Your task to perform on an android device: toggle javascript in the chrome app Image 0: 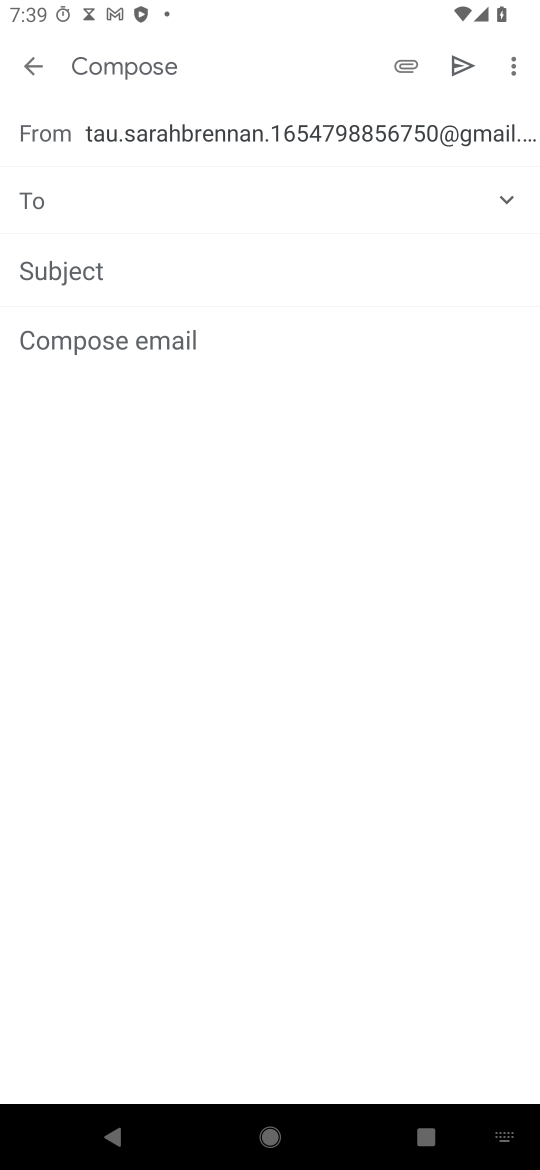
Step 0: press home button
Your task to perform on an android device: toggle javascript in the chrome app Image 1: 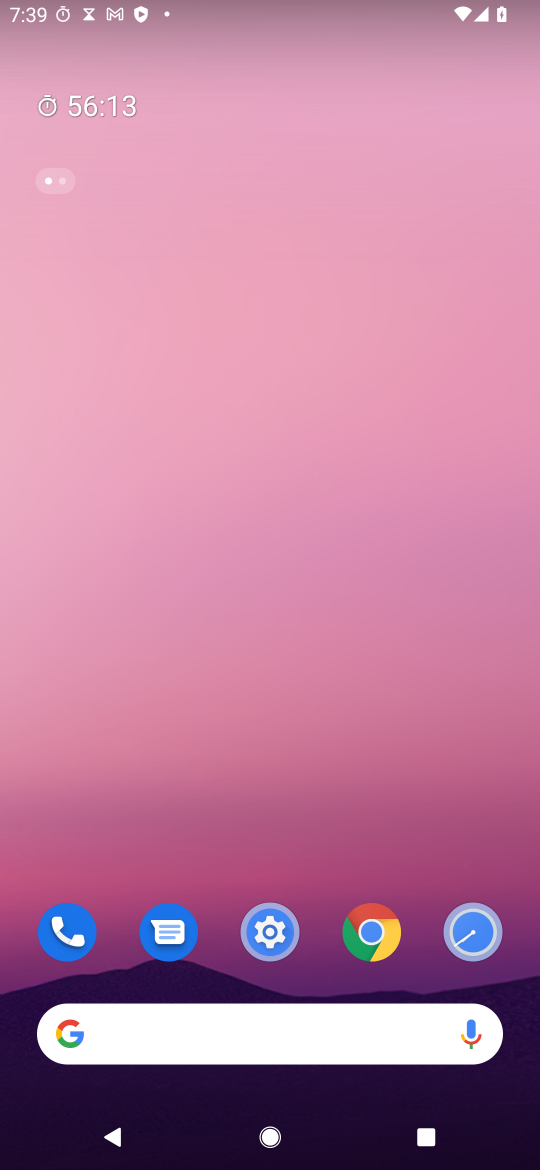
Step 1: drag from (385, 918) to (361, 158)
Your task to perform on an android device: toggle javascript in the chrome app Image 2: 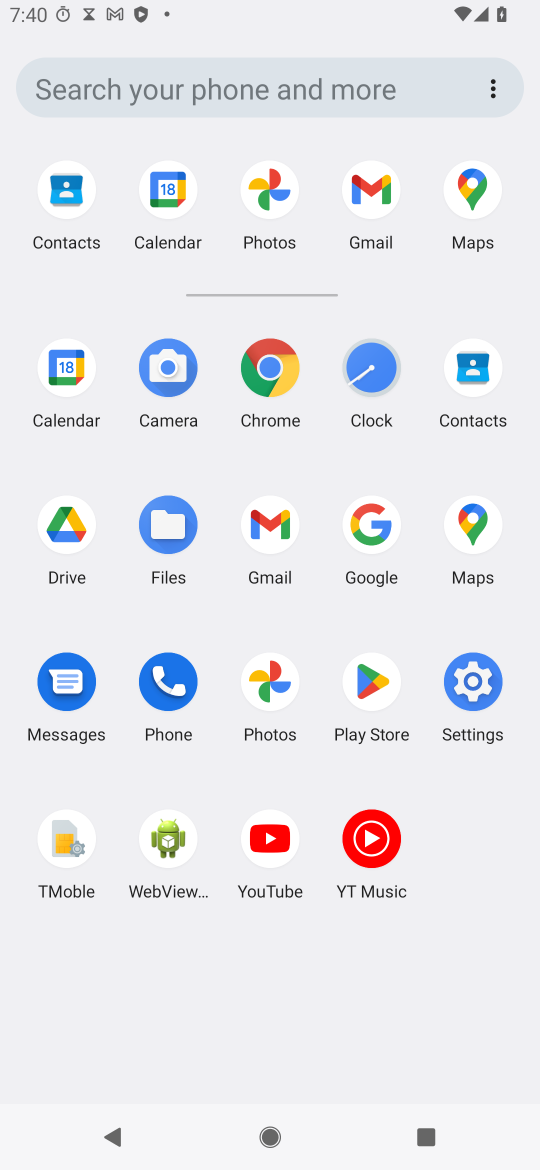
Step 2: click (261, 363)
Your task to perform on an android device: toggle javascript in the chrome app Image 3: 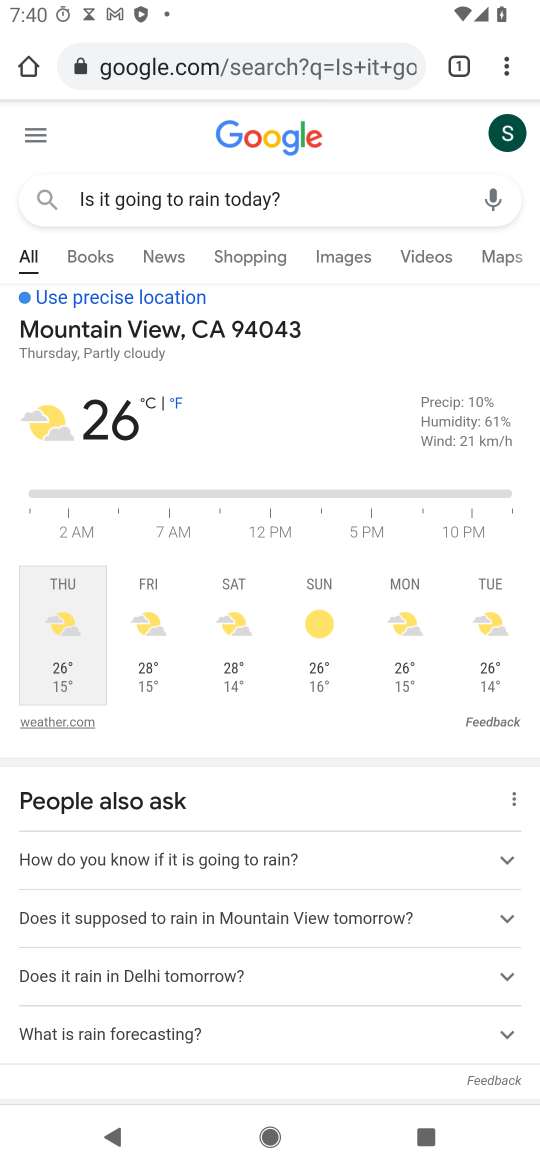
Step 3: drag from (504, 59) to (323, 877)
Your task to perform on an android device: toggle javascript in the chrome app Image 4: 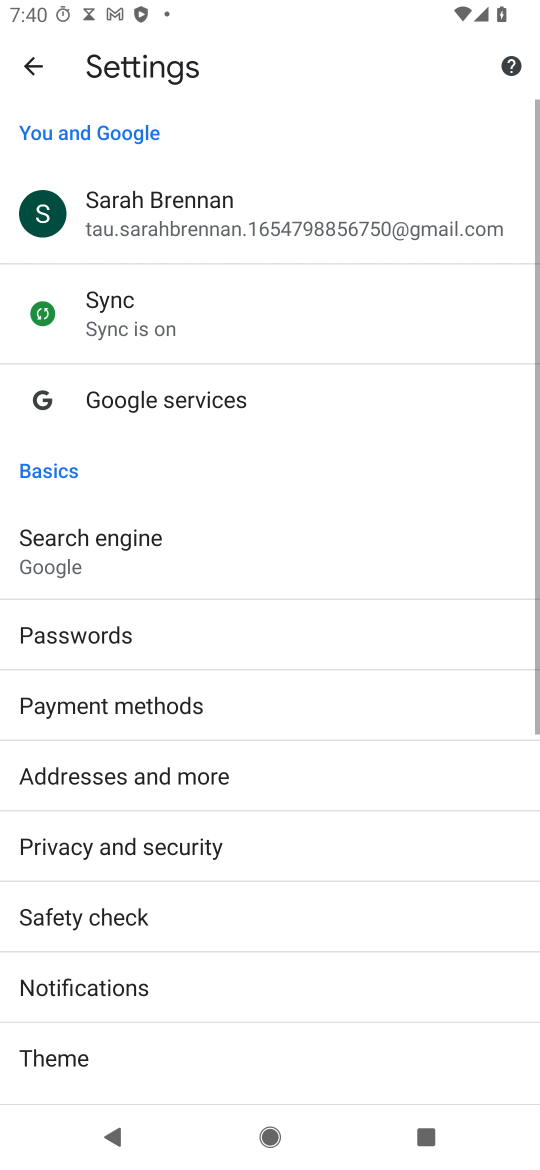
Step 4: drag from (299, 894) to (343, 335)
Your task to perform on an android device: toggle javascript in the chrome app Image 5: 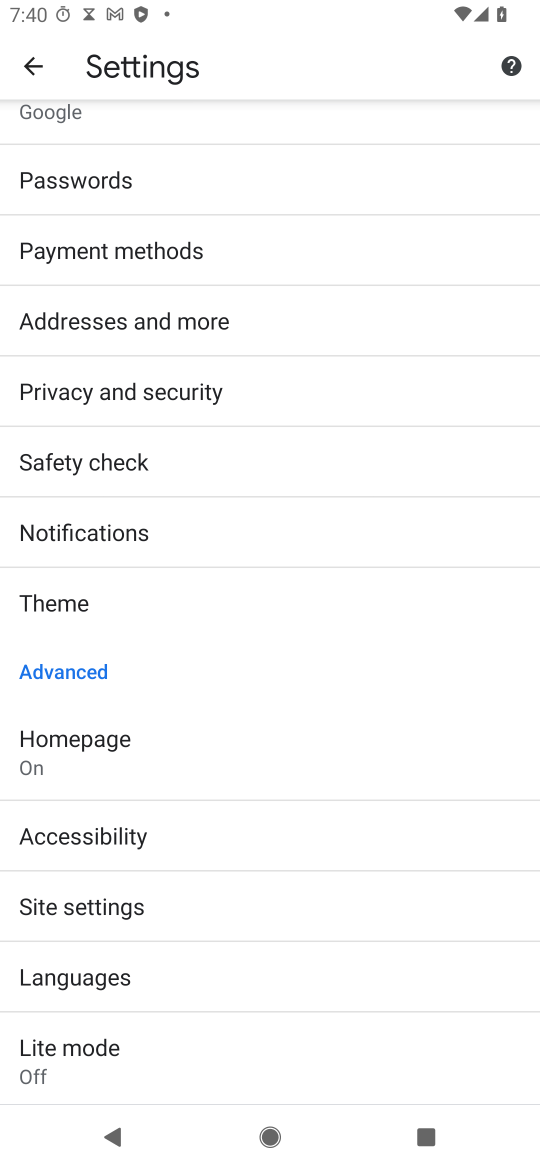
Step 5: click (124, 902)
Your task to perform on an android device: toggle javascript in the chrome app Image 6: 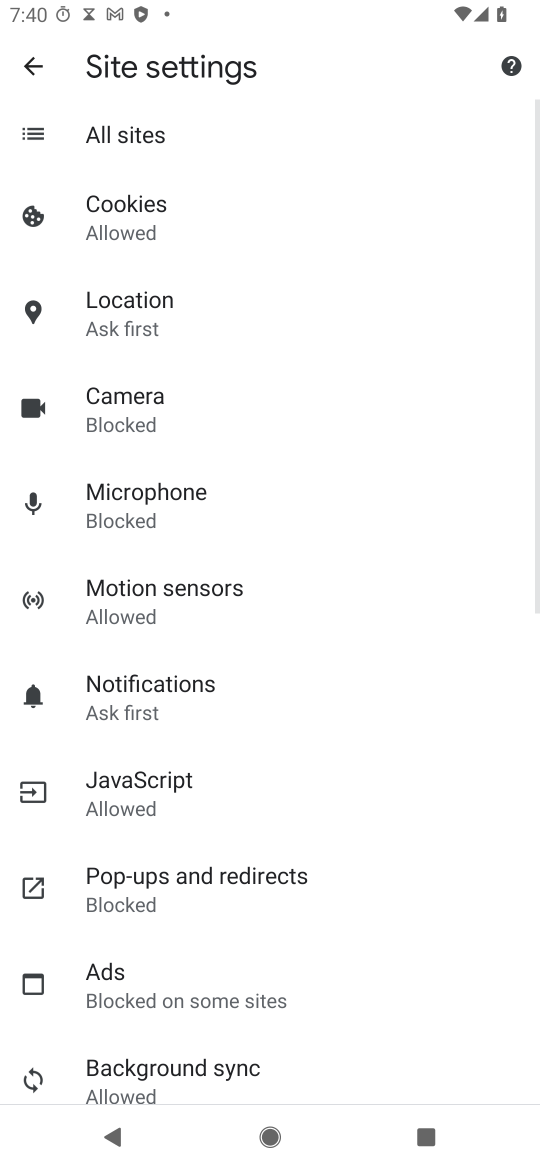
Step 6: click (176, 784)
Your task to perform on an android device: toggle javascript in the chrome app Image 7: 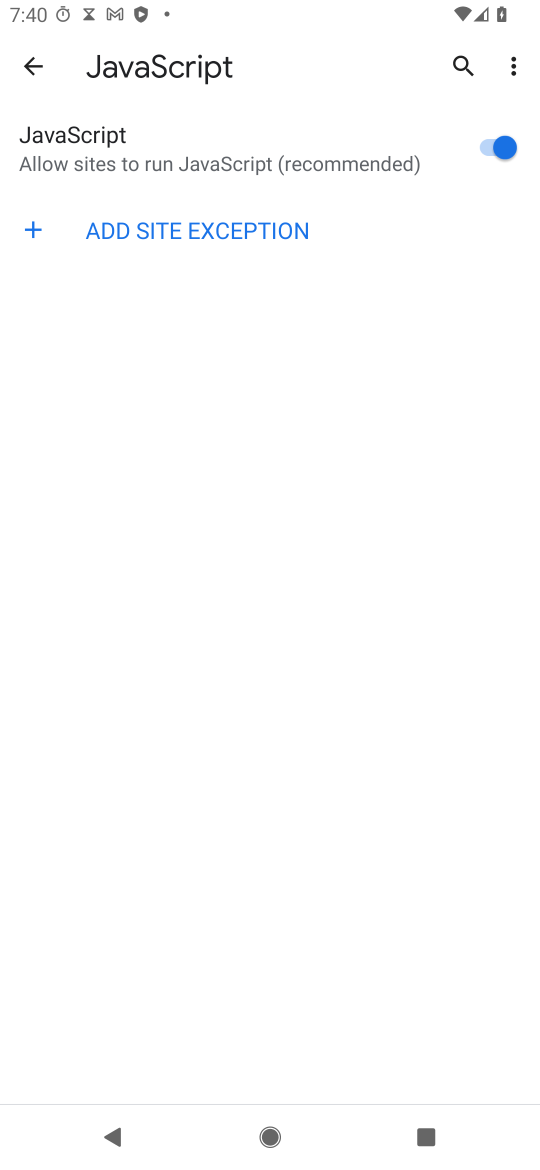
Step 7: click (454, 157)
Your task to perform on an android device: toggle javascript in the chrome app Image 8: 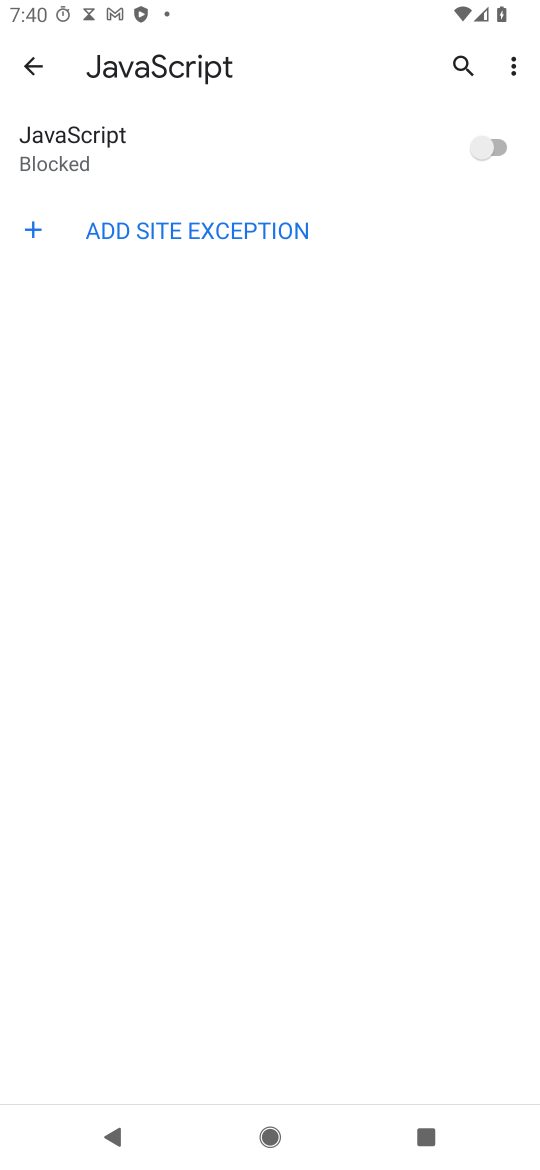
Step 8: task complete